Your task to perform on an android device: Search for seafood restaurants on Google Maps Image 0: 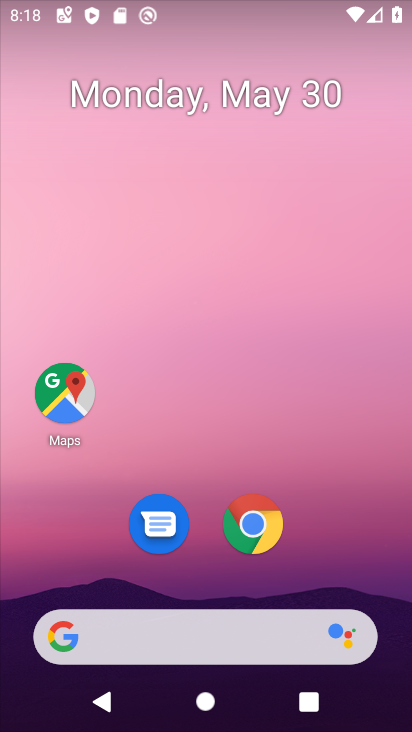
Step 0: click (47, 382)
Your task to perform on an android device: Search for seafood restaurants on Google Maps Image 1: 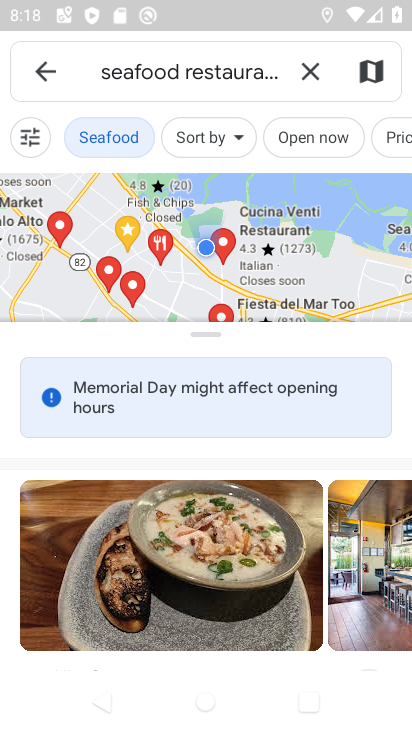
Step 1: task complete